Your task to perform on an android device: choose inbox layout in the gmail app Image 0: 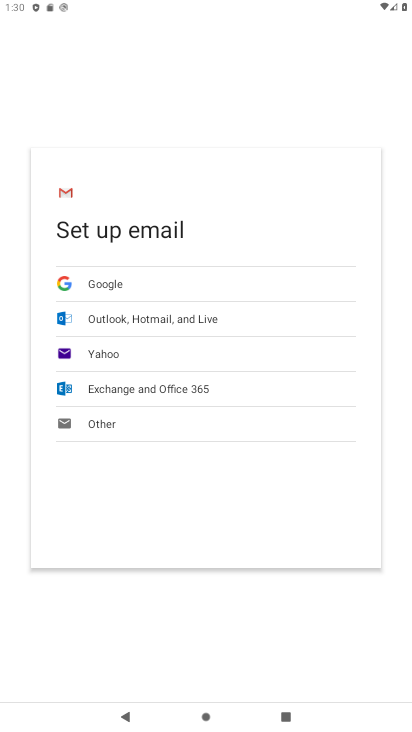
Step 0: press home button
Your task to perform on an android device: choose inbox layout in the gmail app Image 1: 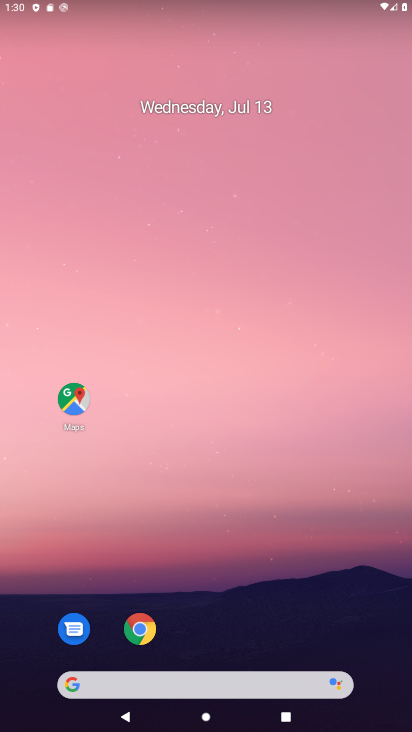
Step 1: drag from (261, 623) to (213, 46)
Your task to perform on an android device: choose inbox layout in the gmail app Image 2: 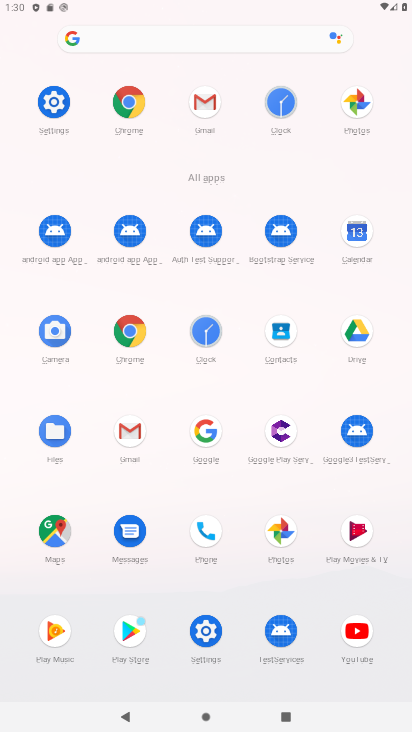
Step 2: click (205, 112)
Your task to perform on an android device: choose inbox layout in the gmail app Image 3: 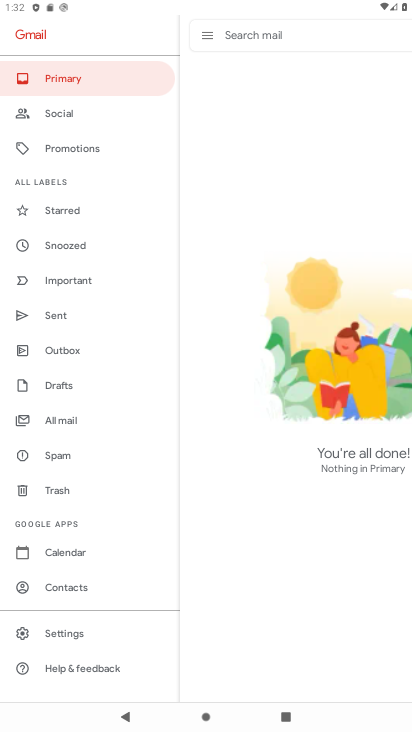
Step 3: task complete